Your task to perform on an android device: empty trash in the gmail app Image 0: 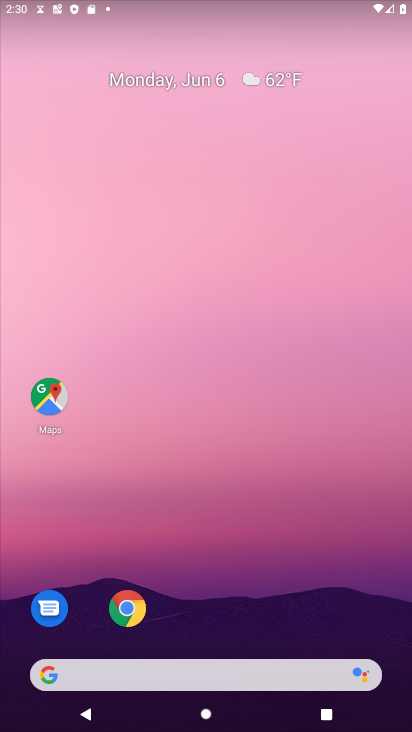
Step 0: drag from (268, 602) to (333, 118)
Your task to perform on an android device: empty trash in the gmail app Image 1: 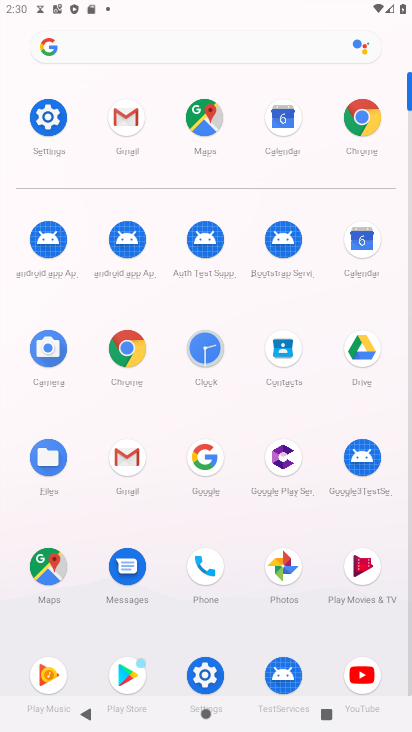
Step 1: click (116, 112)
Your task to perform on an android device: empty trash in the gmail app Image 2: 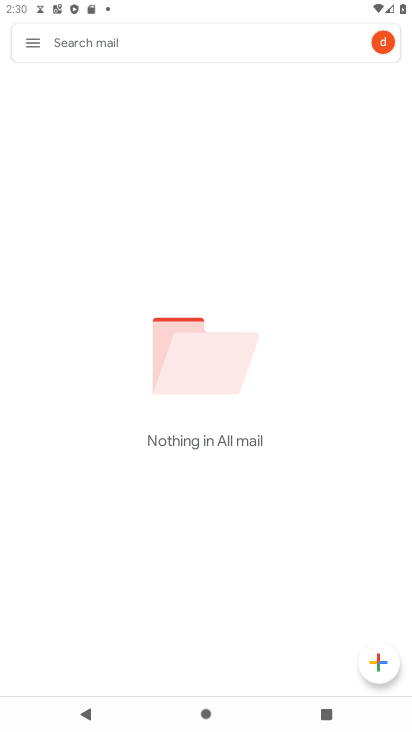
Step 2: click (21, 54)
Your task to perform on an android device: empty trash in the gmail app Image 3: 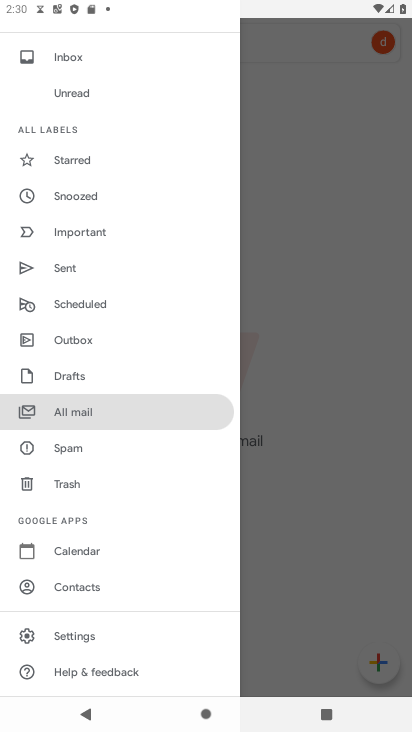
Step 3: click (75, 496)
Your task to perform on an android device: empty trash in the gmail app Image 4: 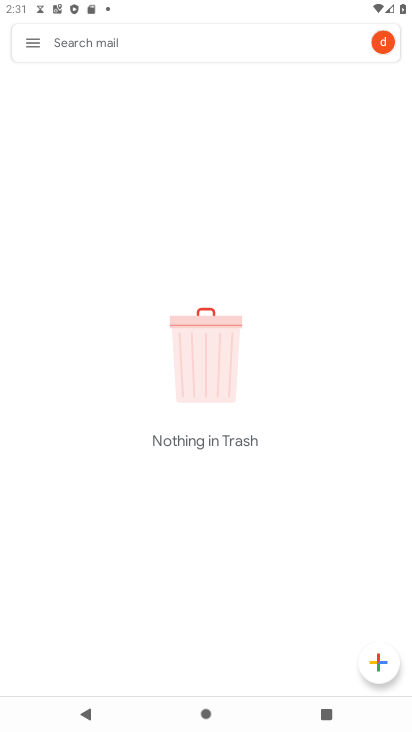
Step 4: task complete